Your task to perform on an android device: Open Wikipedia Image 0: 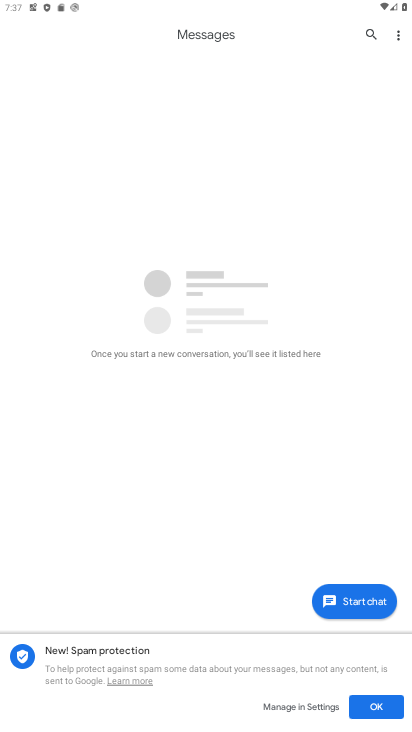
Step 0: press home button
Your task to perform on an android device: Open Wikipedia Image 1: 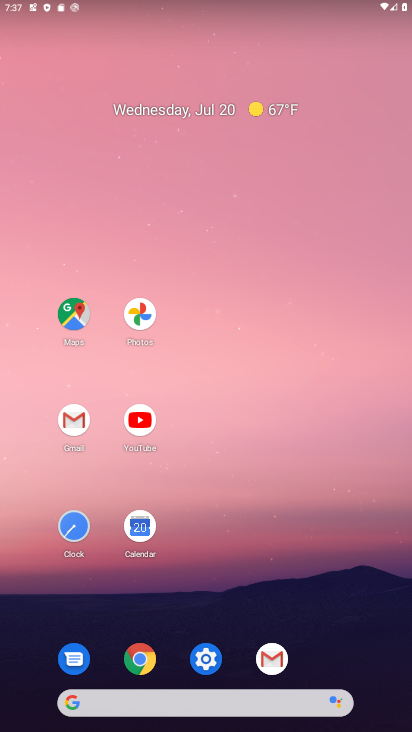
Step 1: click (139, 667)
Your task to perform on an android device: Open Wikipedia Image 2: 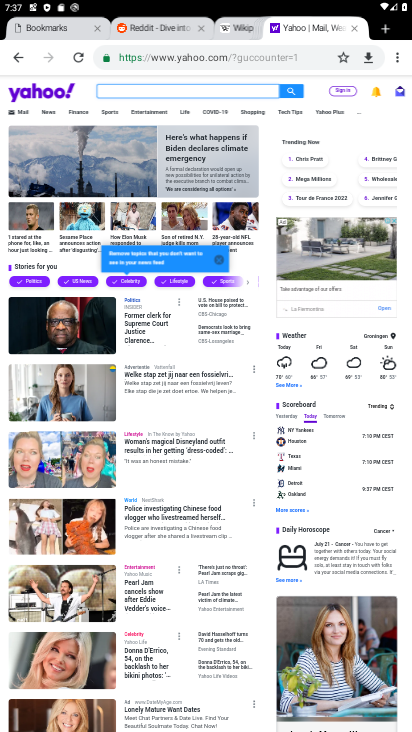
Step 2: click (398, 61)
Your task to perform on an android device: Open Wikipedia Image 3: 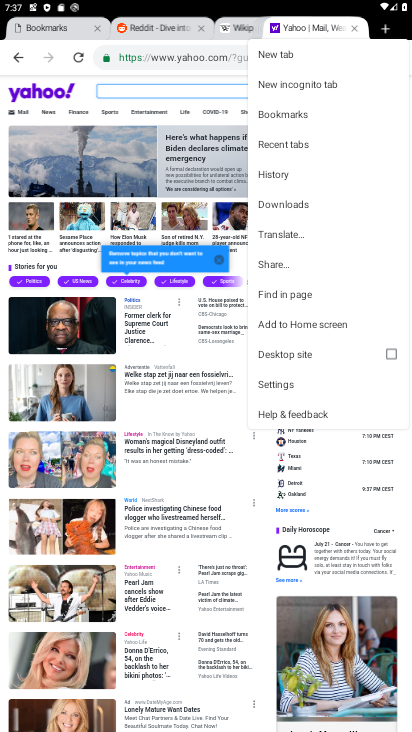
Step 3: click (277, 55)
Your task to perform on an android device: Open Wikipedia Image 4: 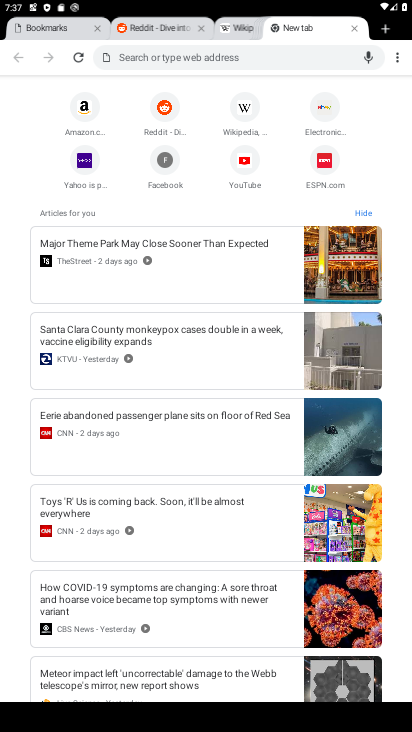
Step 4: click (246, 105)
Your task to perform on an android device: Open Wikipedia Image 5: 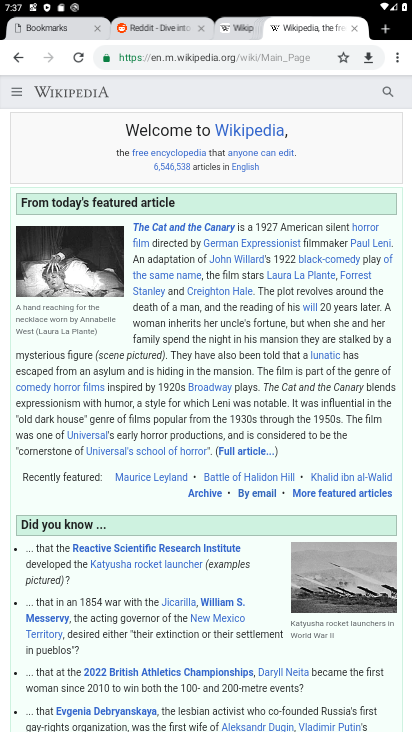
Step 5: task complete